Your task to perform on an android device: open app "Facebook Lite" Image 0: 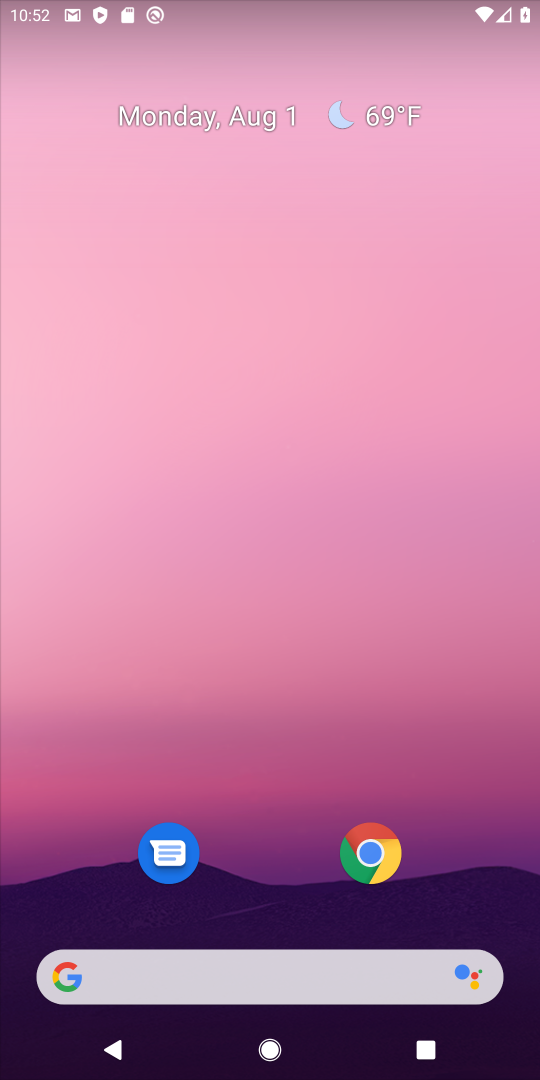
Step 0: press home button
Your task to perform on an android device: open app "Facebook Lite" Image 1: 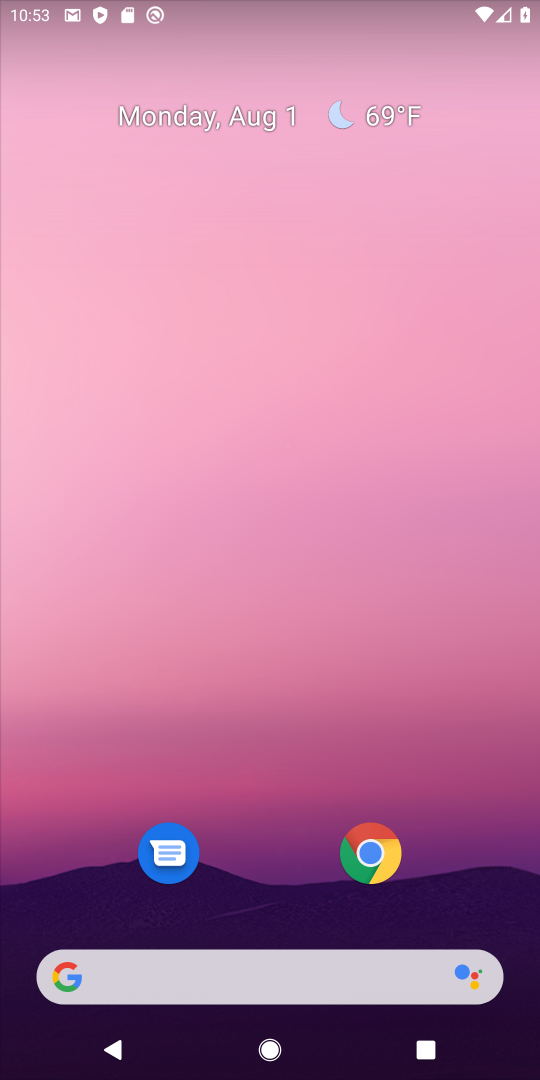
Step 1: drag from (283, 909) to (336, 60)
Your task to perform on an android device: open app "Facebook Lite" Image 2: 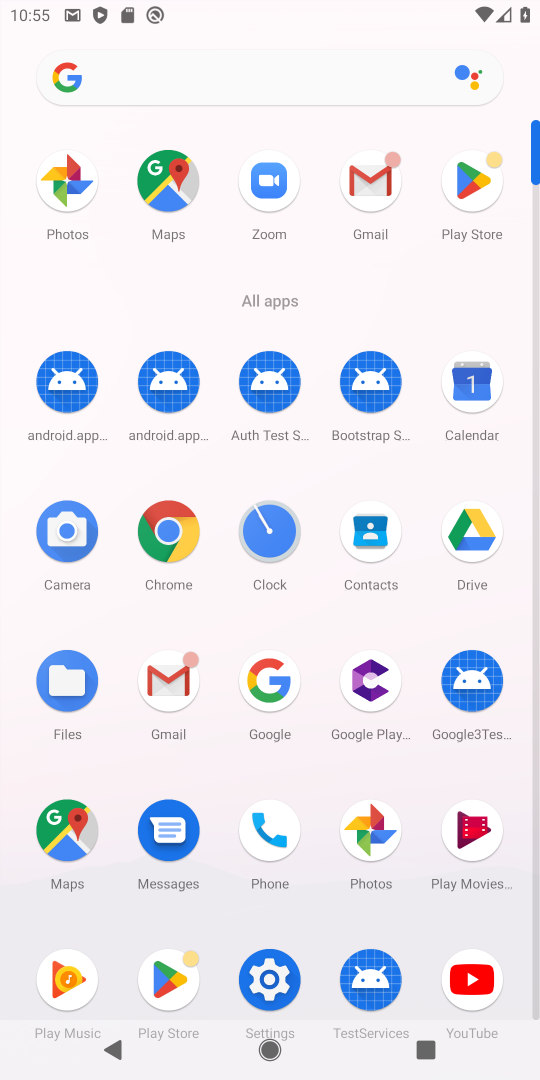
Step 2: click (473, 183)
Your task to perform on an android device: open app "Facebook Lite" Image 3: 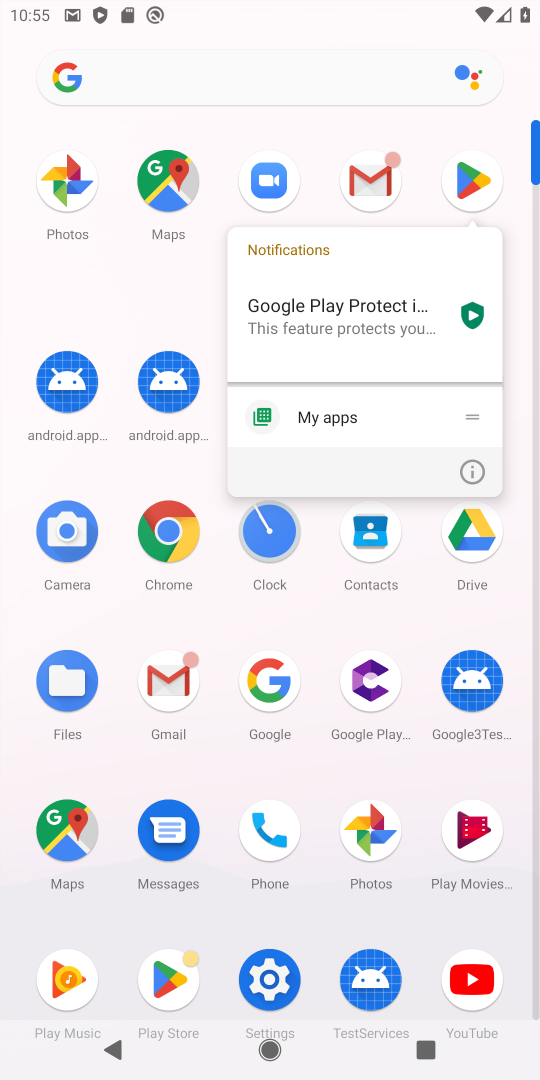
Step 3: click (457, 202)
Your task to perform on an android device: open app "Facebook Lite" Image 4: 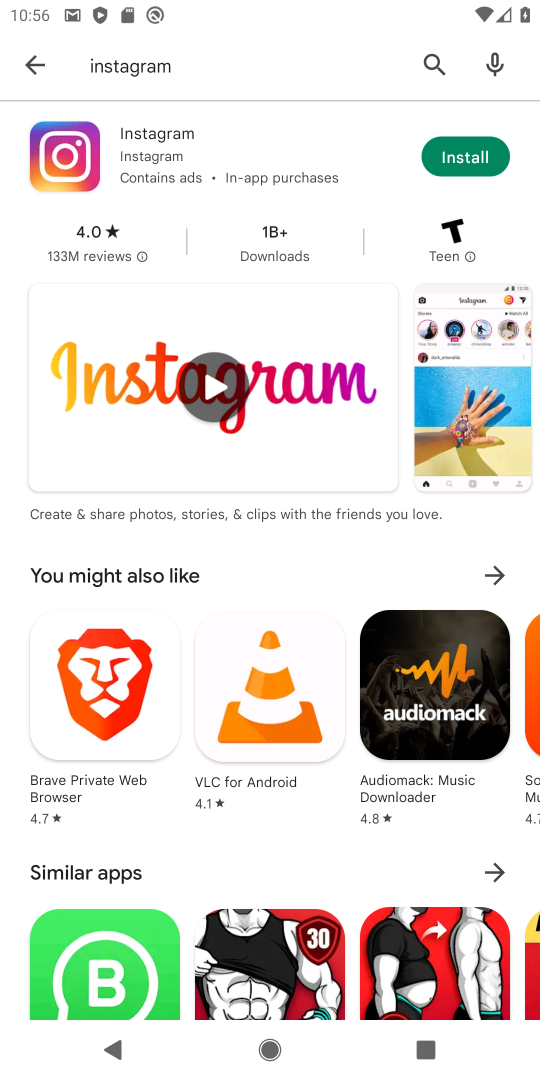
Step 4: click (449, 153)
Your task to perform on an android device: open app "Facebook Lite" Image 5: 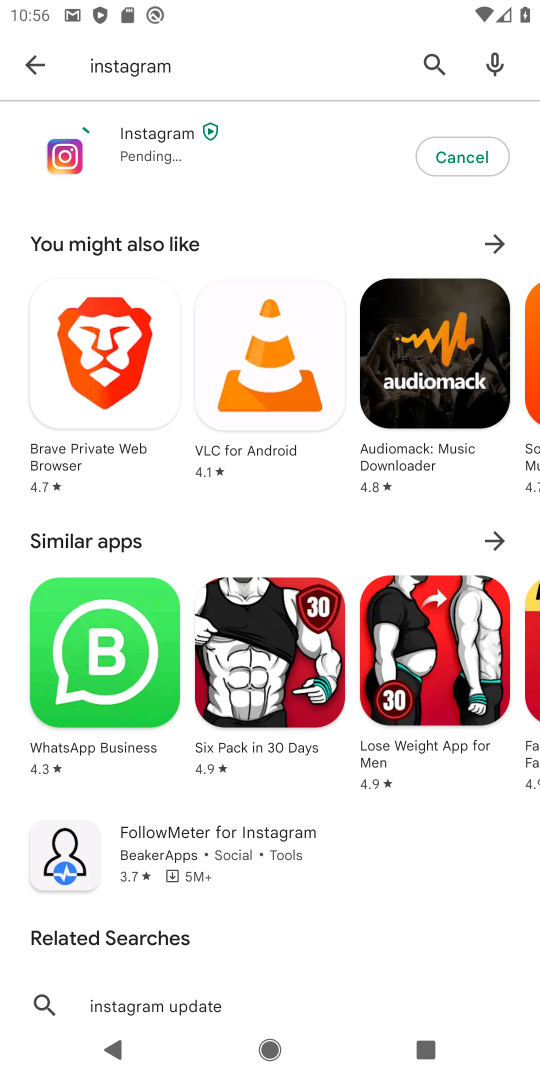
Step 5: click (500, 153)
Your task to perform on an android device: open app "Facebook Lite" Image 6: 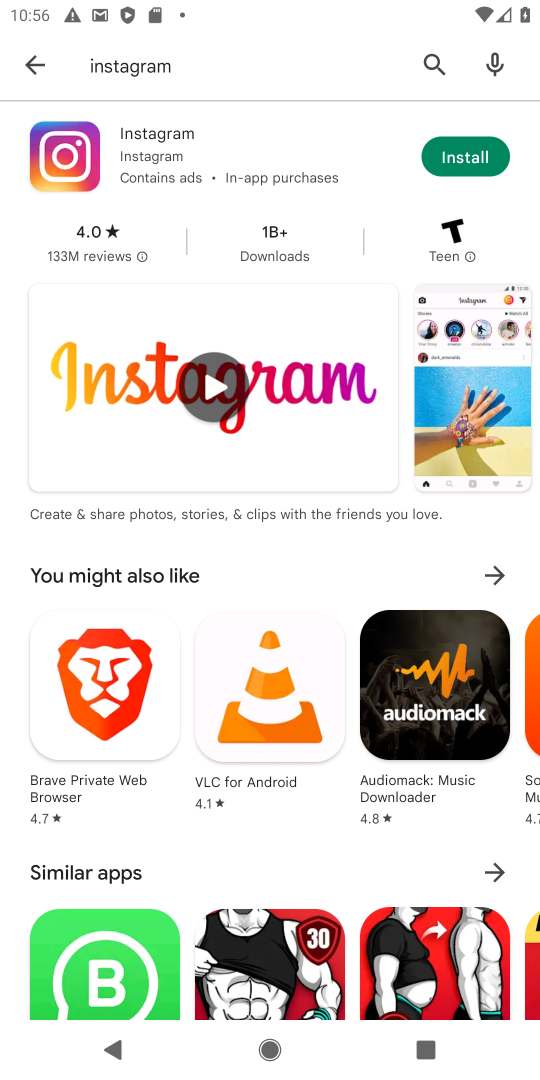
Step 6: click (444, 66)
Your task to perform on an android device: open app "Facebook Lite" Image 7: 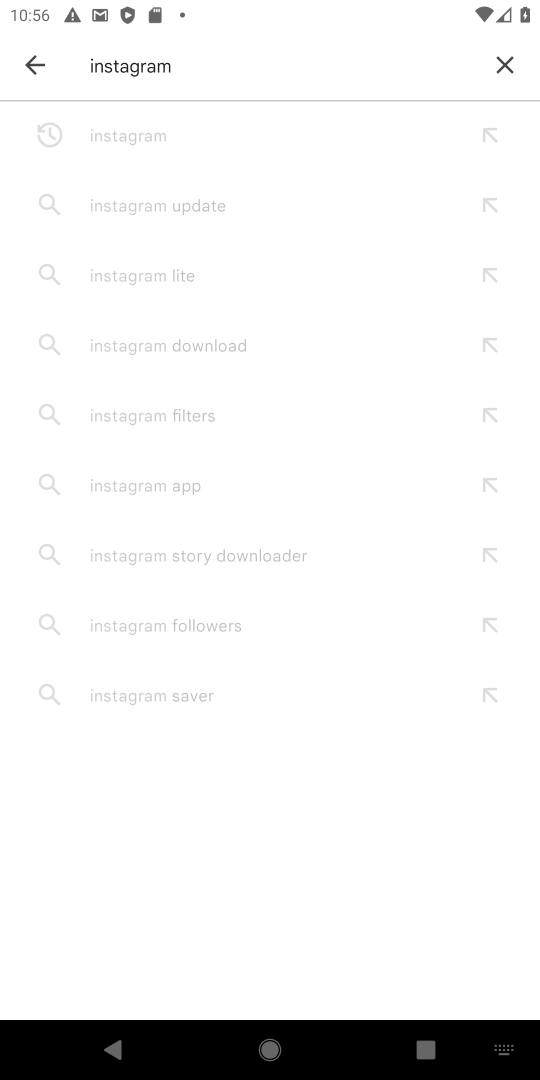
Step 7: click (508, 74)
Your task to perform on an android device: open app "Facebook Lite" Image 8: 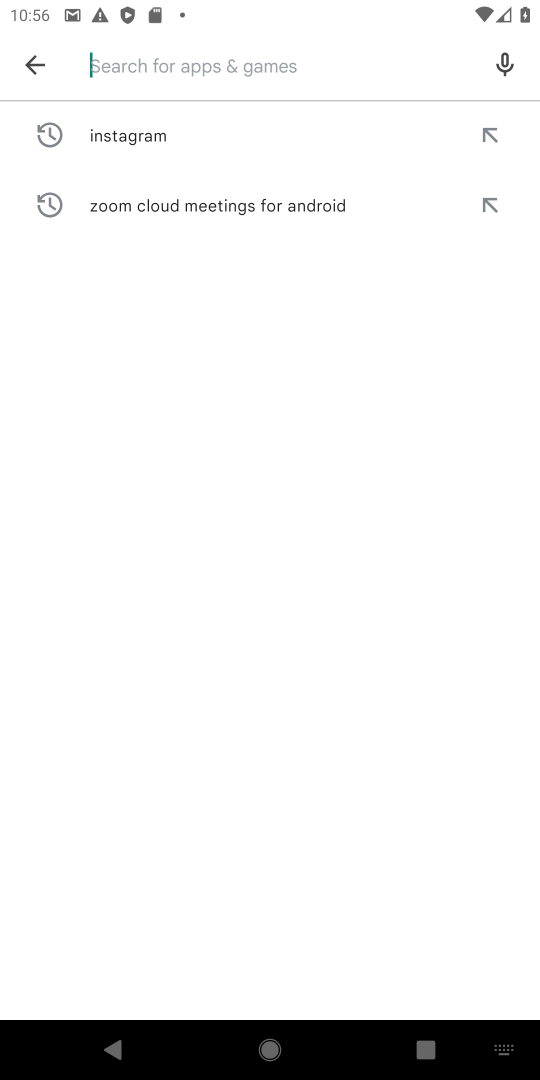
Step 8: type "Facebook Lite""
Your task to perform on an android device: open app "Facebook Lite" Image 9: 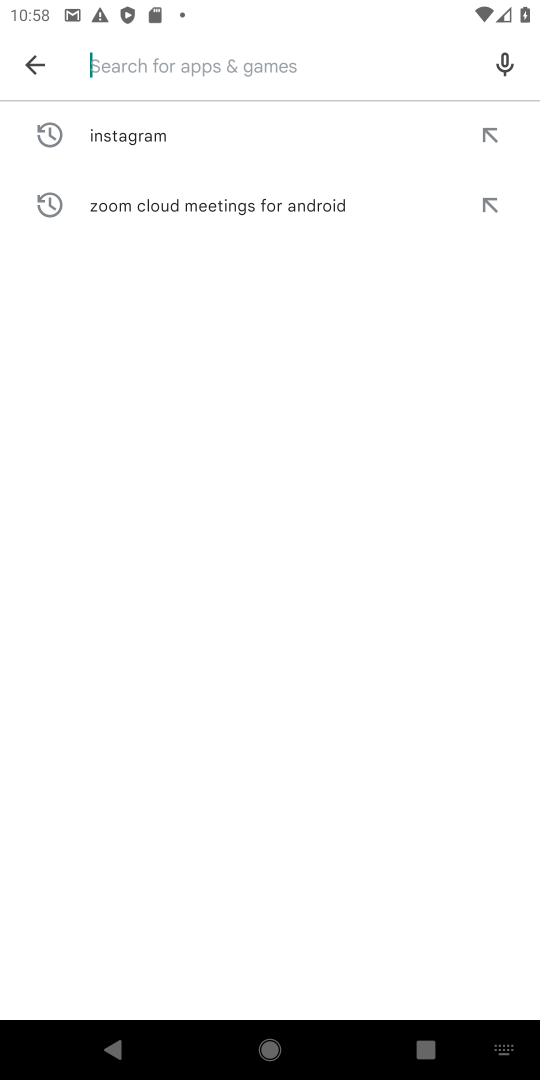
Step 9: type "Facebook Lite""
Your task to perform on an android device: open app "Facebook Lite" Image 10: 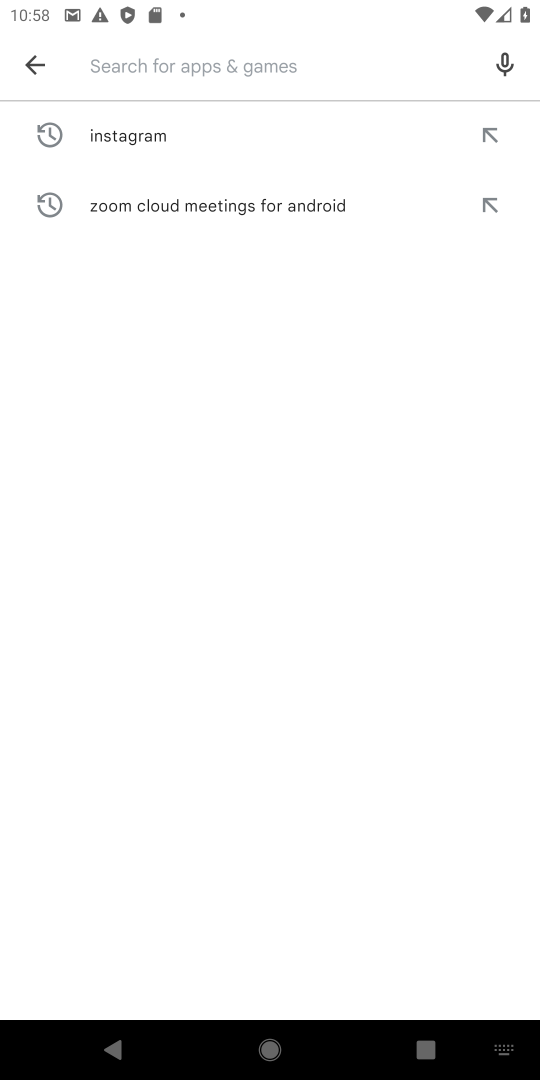
Step 10: type ""
Your task to perform on an android device: open app "Facebook Lite" Image 11: 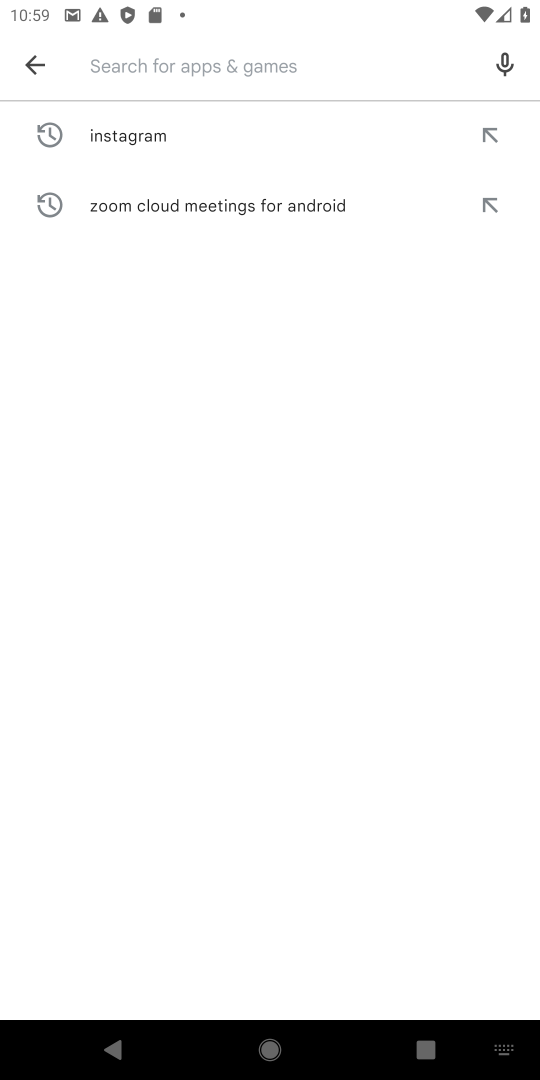
Step 11: type "facebook lite"
Your task to perform on an android device: open app "Facebook Lite" Image 12: 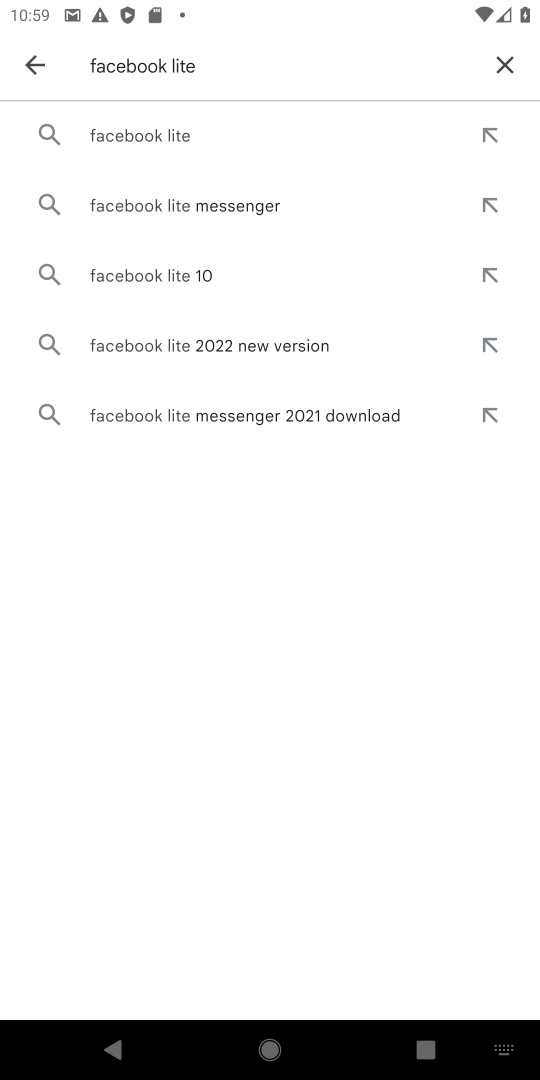
Step 12: click (111, 141)
Your task to perform on an android device: open app "Facebook Lite" Image 13: 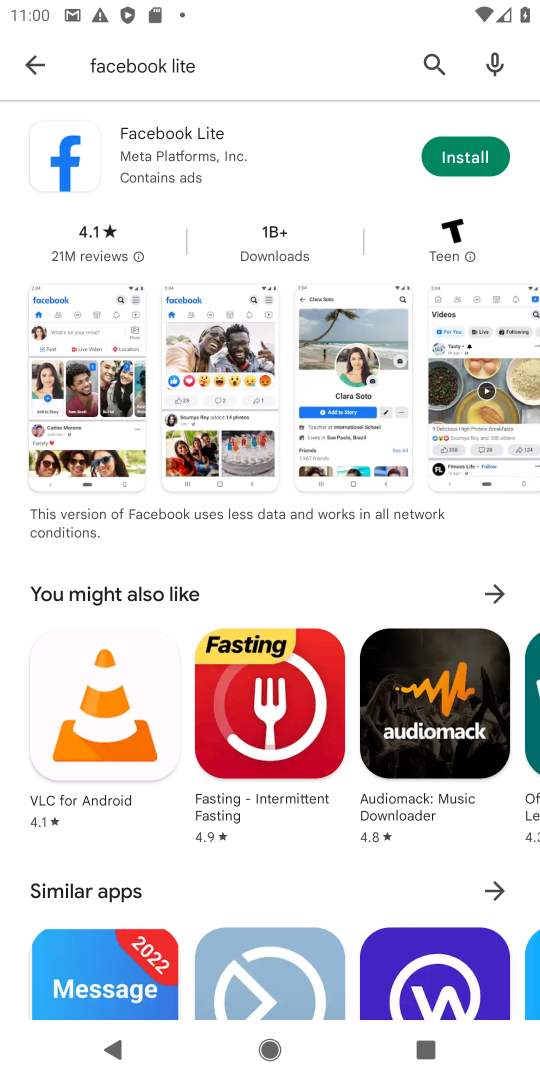
Step 13: task complete